Your task to perform on an android device: open the mobile data screen to see how much data has been used Image 0: 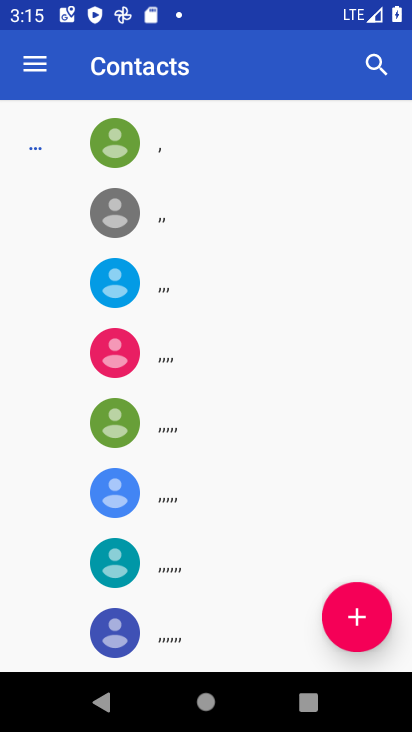
Step 0: press home button
Your task to perform on an android device: open the mobile data screen to see how much data has been used Image 1: 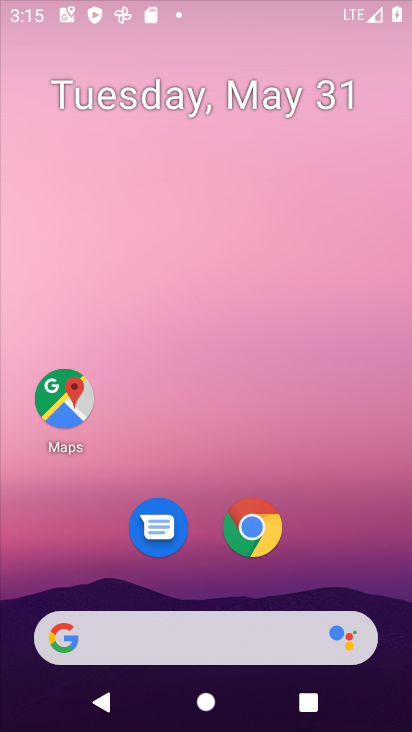
Step 1: drag from (360, 549) to (366, 4)
Your task to perform on an android device: open the mobile data screen to see how much data has been used Image 2: 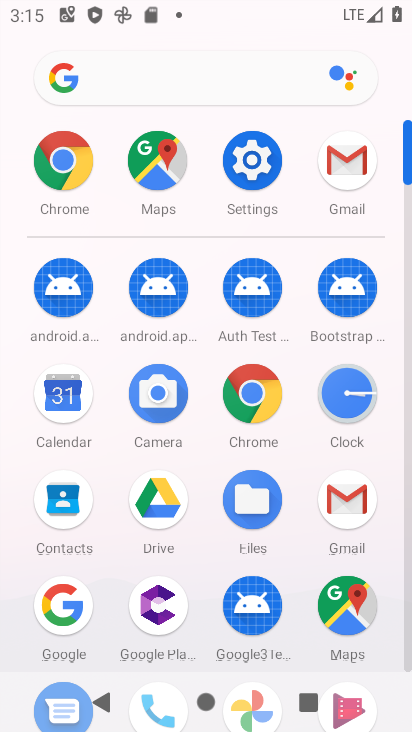
Step 2: click (259, 180)
Your task to perform on an android device: open the mobile data screen to see how much data has been used Image 3: 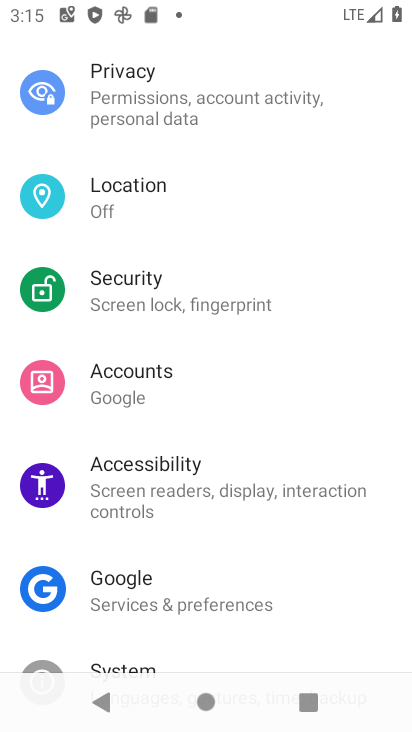
Step 3: drag from (209, 171) to (276, 614)
Your task to perform on an android device: open the mobile data screen to see how much data has been used Image 4: 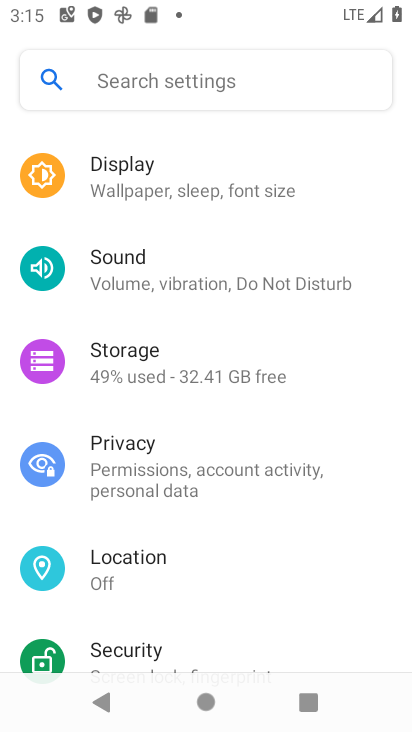
Step 4: drag from (231, 256) to (265, 620)
Your task to perform on an android device: open the mobile data screen to see how much data has been used Image 5: 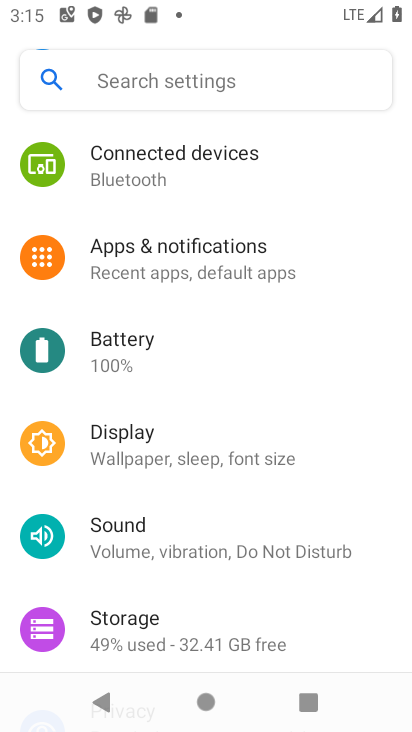
Step 5: drag from (203, 208) to (242, 622)
Your task to perform on an android device: open the mobile data screen to see how much data has been used Image 6: 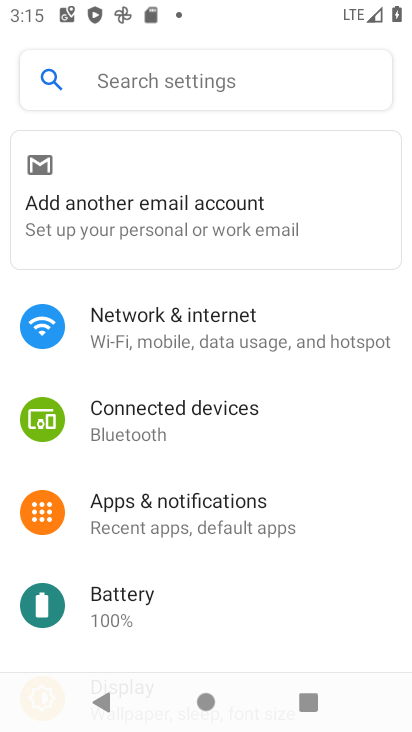
Step 6: click (155, 335)
Your task to perform on an android device: open the mobile data screen to see how much data has been used Image 7: 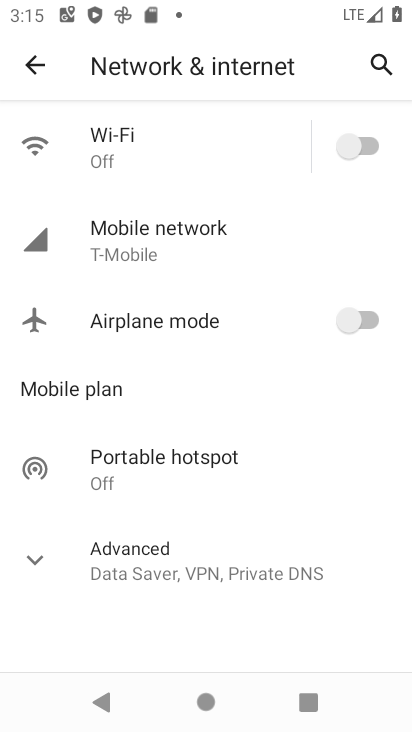
Step 7: click (132, 250)
Your task to perform on an android device: open the mobile data screen to see how much data has been used Image 8: 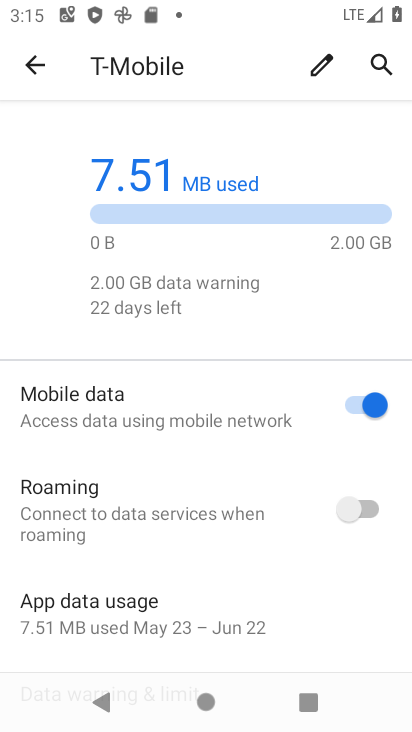
Step 8: task complete